Your task to perform on an android device: Go to accessibility settings Image 0: 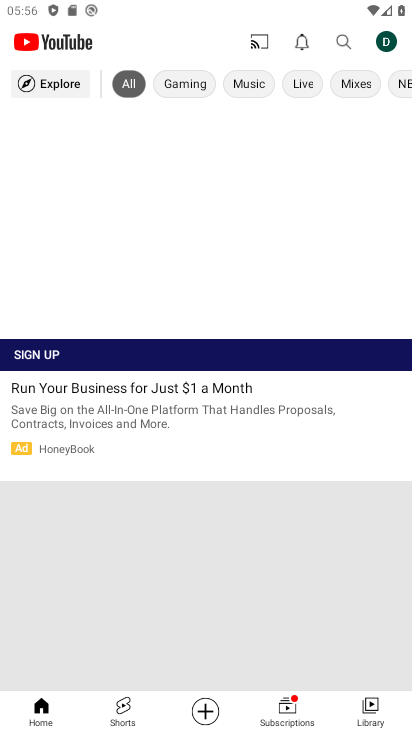
Step 0: press home button
Your task to perform on an android device: Go to accessibility settings Image 1: 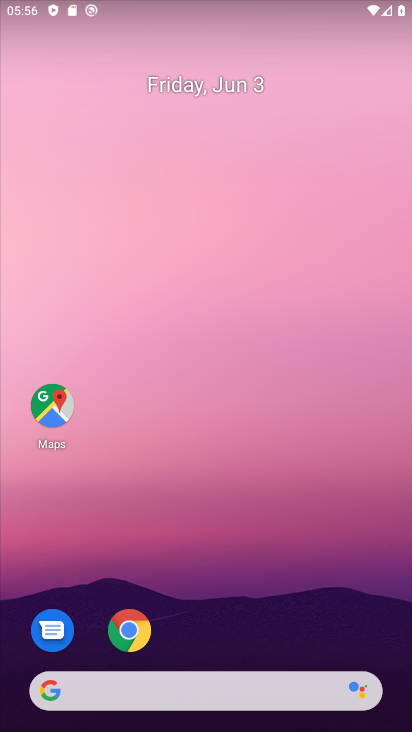
Step 1: drag from (256, 646) to (358, 167)
Your task to perform on an android device: Go to accessibility settings Image 2: 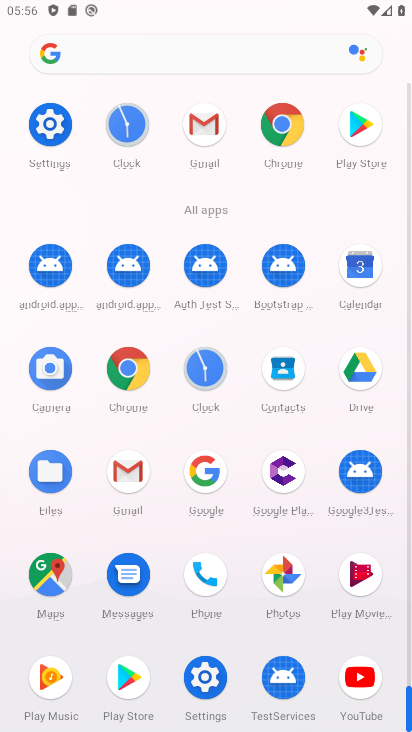
Step 2: click (51, 142)
Your task to perform on an android device: Go to accessibility settings Image 3: 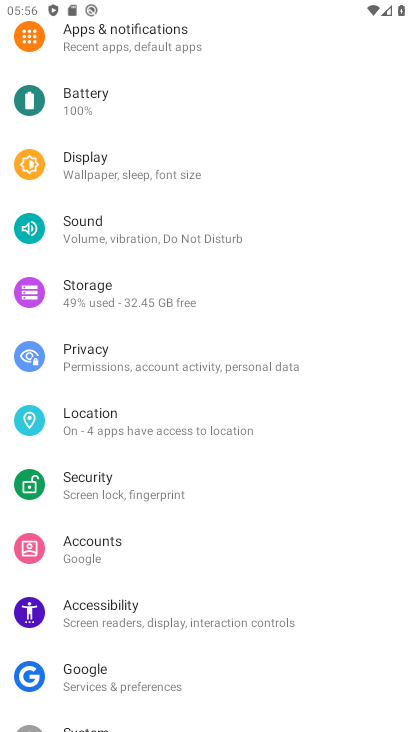
Step 3: click (125, 611)
Your task to perform on an android device: Go to accessibility settings Image 4: 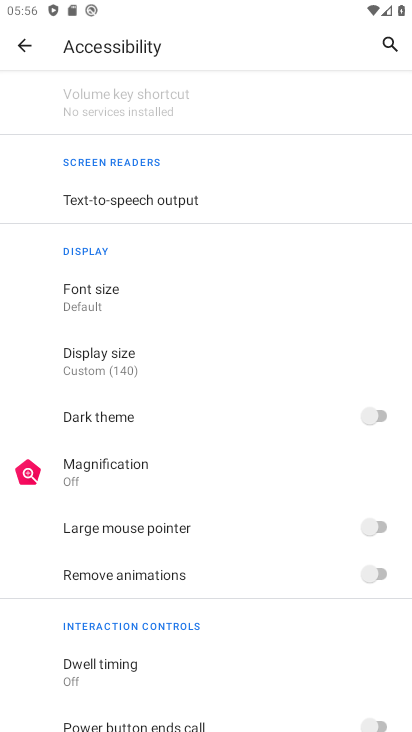
Step 4: task complete